Your task to perform on an android device: turn on the 24-hour format for clock Image 0: 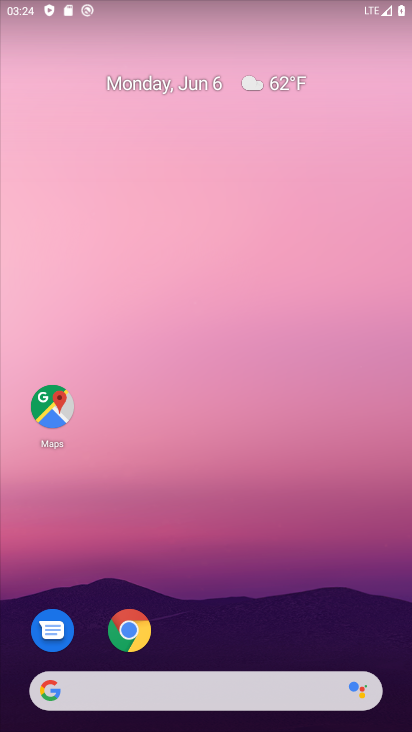
Step 0: press home button
Your task to perform on an android device: turn on the 24-hour format for clock Image 1: 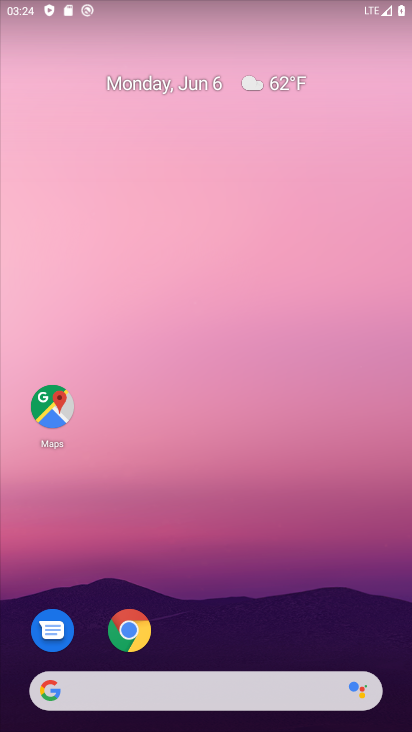
Step 1: drag from (254, 589) to (77, 45)
Your task to perform on an android device: turn on the 24-hour format for clock Image 2: 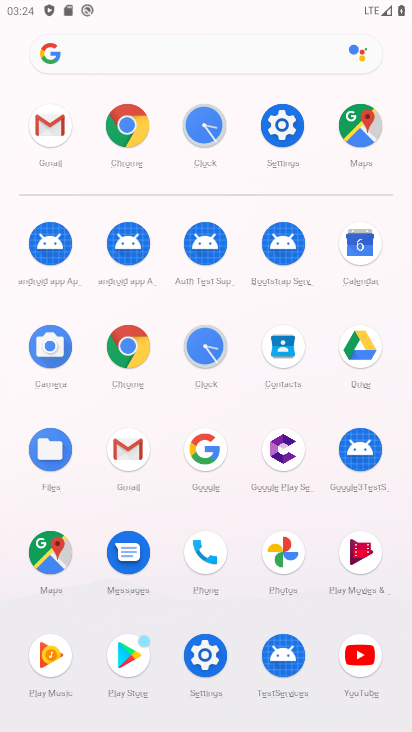
Step 2: click (224, 360)
Your task to perform on an android device: turn on the 24-hour format for clock Image 3: 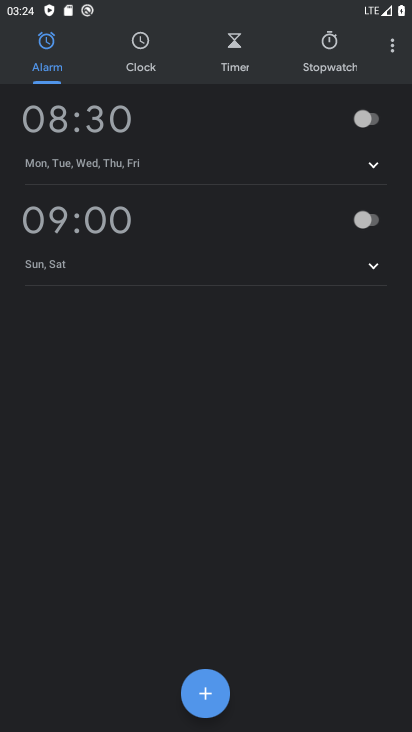
Step 3: click (397, 35)
Your task to perform on an android device: turn on the 24-hour format for clock Image 4: 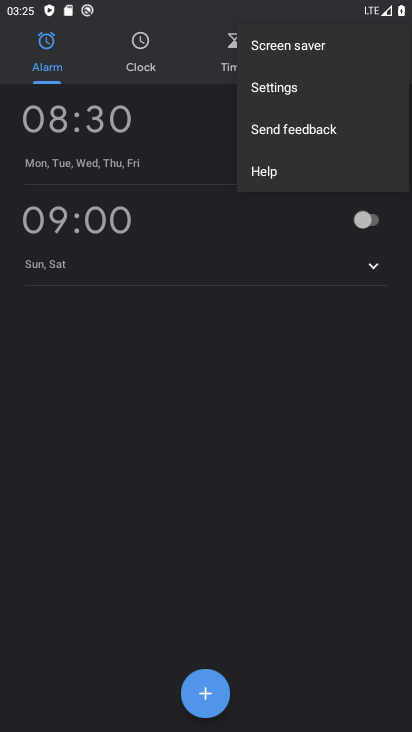
Step 4: click (304, 86)
Your task to perform on an android device: turn on the 24-hour format for clock Image 5: 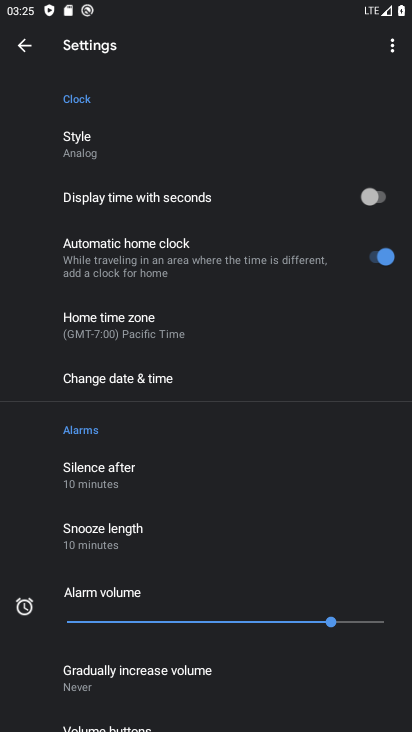
Step 5: click (143, 369)
Your task to perform on an android device: turn on the 24-hour format for clock Image 6: 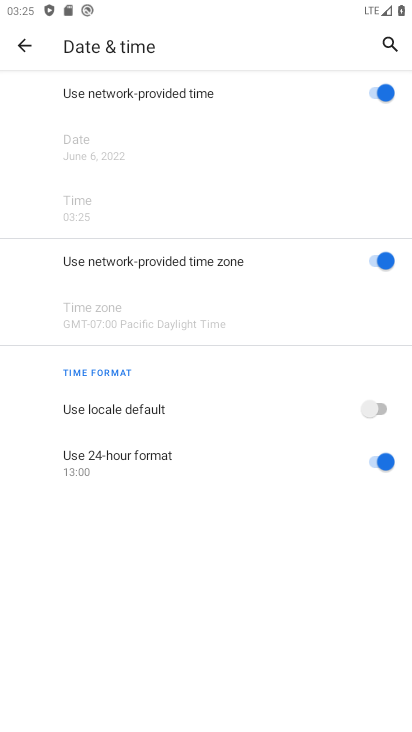
Step 6: task complete